Your task to perform on an android device: Clear all items from cart on amazon.com. Search for "razer blade" on amazon.com, select the first entry, and add it to the cart. Image 0: 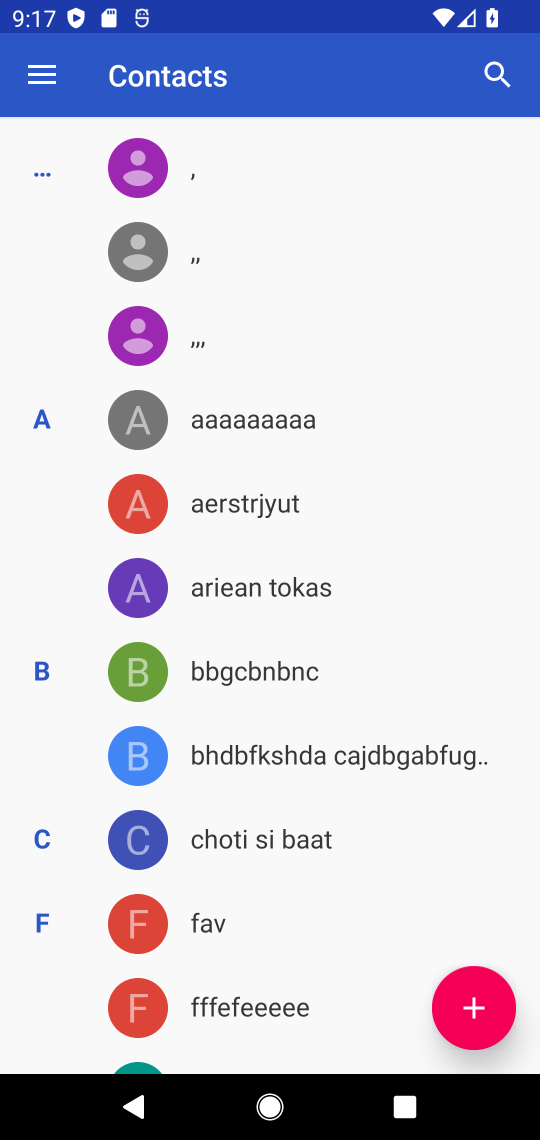
Step 0: press home button
Your task to perform on an android device: Clear all items from cart on amazon.com. Search for "razer blade" on amazon.com, select the first entry, and add it to the cart. Image 1: 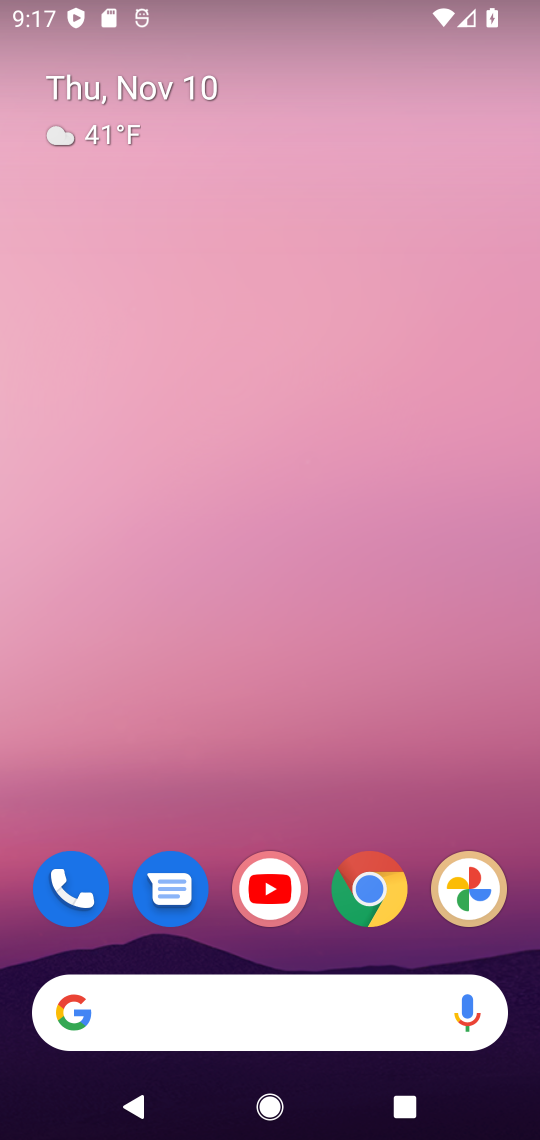
Step 1: click (376, 897)
Your task to perform on an android device: Clear all items from cart on amazon.com. Search for "razer blade" on amazon.com, select the first entry, and add it to the cart. Image 2: 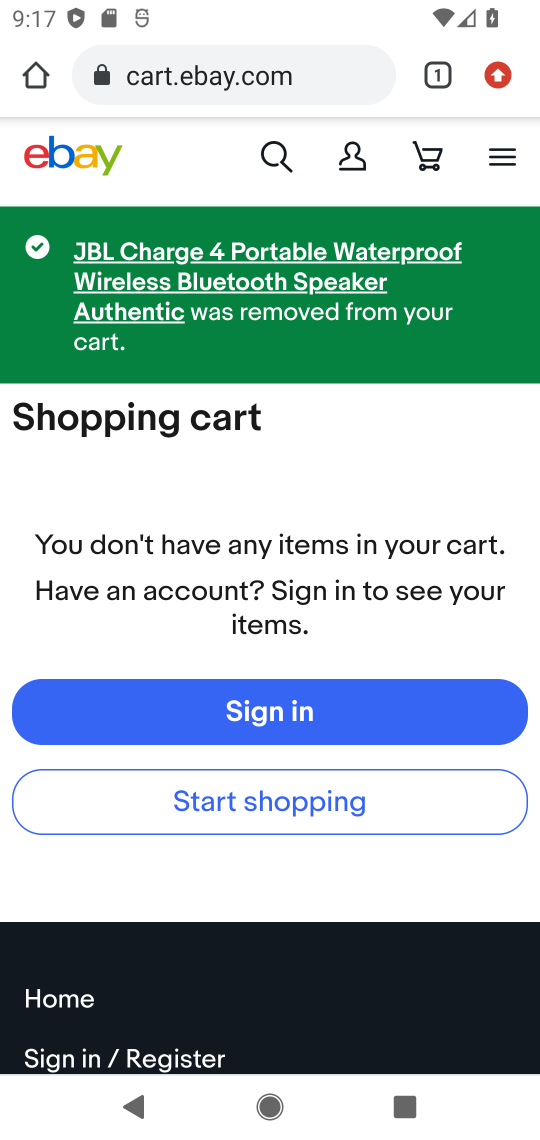
Step 2: click (292, 74)
Your task to perform on an android device: Clear all items from cart on amazon.com. Search for "razer blade" on amazon.com, select the first entry, and add it to the cart. Image 3: 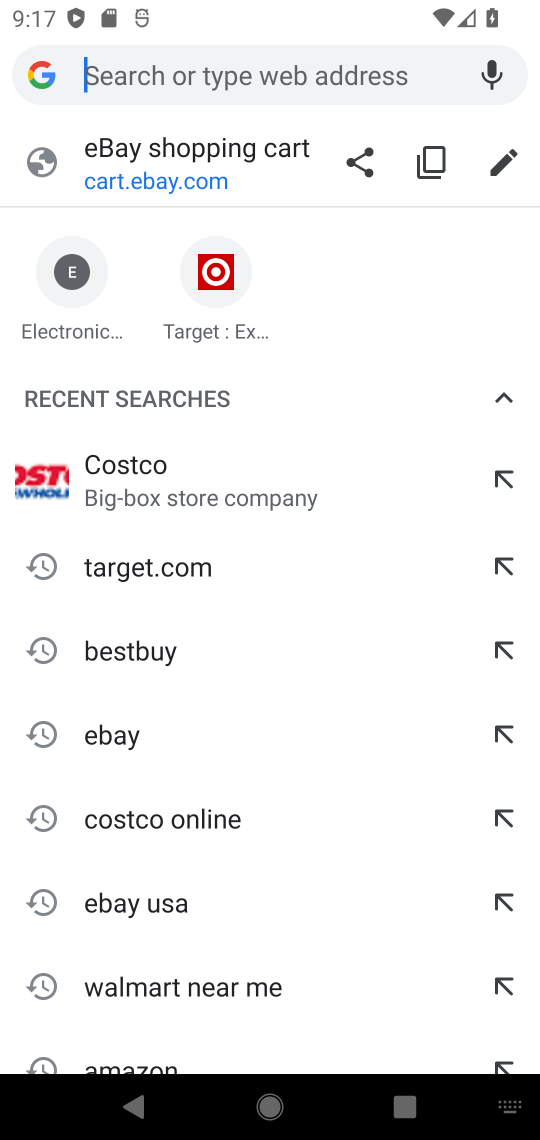
Step 3: drag from (260, 907) to (399, 530)
Your task to perform on an android device: Clear all items from cart on amazon.com. Search for "razer blade" on amazon.com, select the first entry, and add it to the cart. Image 4: 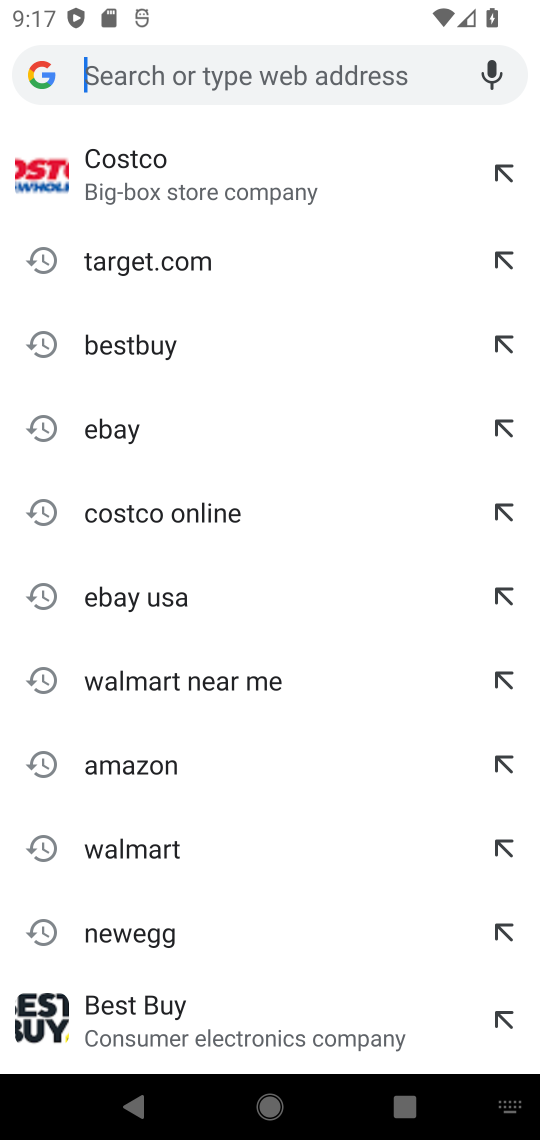
Step 4: click (127, 764)
Your task to perform on an android device: Clear all items from cart on amazon.com. Search for "razer blade" on amazon.com, select the first entry, and add it to the cart. Image 5: 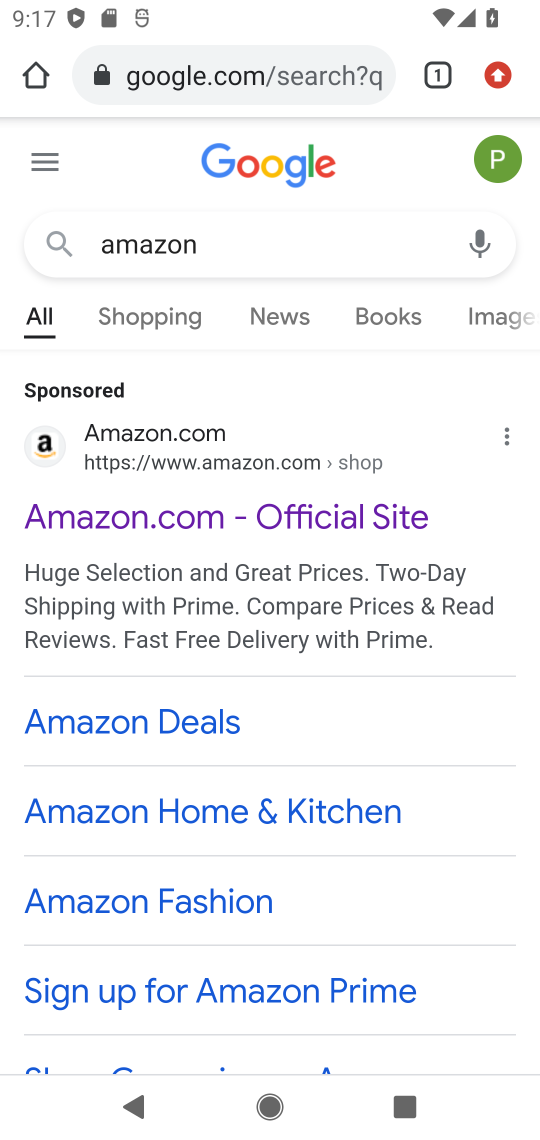
Step 5: click (182, 517)
Your task to perform on an android device: Clear all items from cart on amazon.com. Search for "razer blade" on amazon.com, select the first entry, and add it to the cart. Image 6: 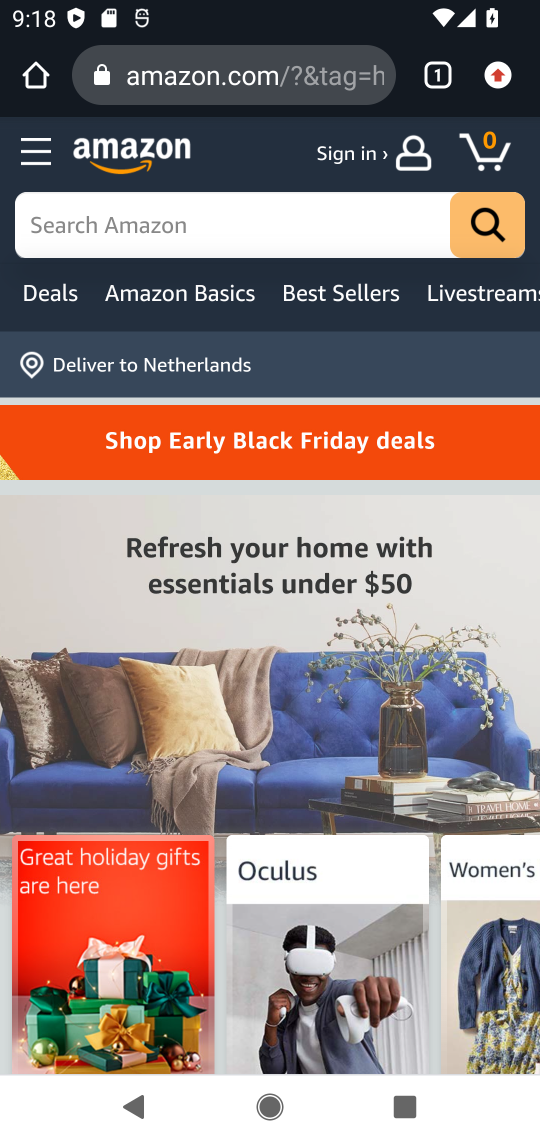
Step 6: click (322, 223)
Your task to perform on an android device: Clear all items from cart on amazon.com. Search for "razer blade" on amazon.com, select the first entry, and add it to the cart. Image 7: 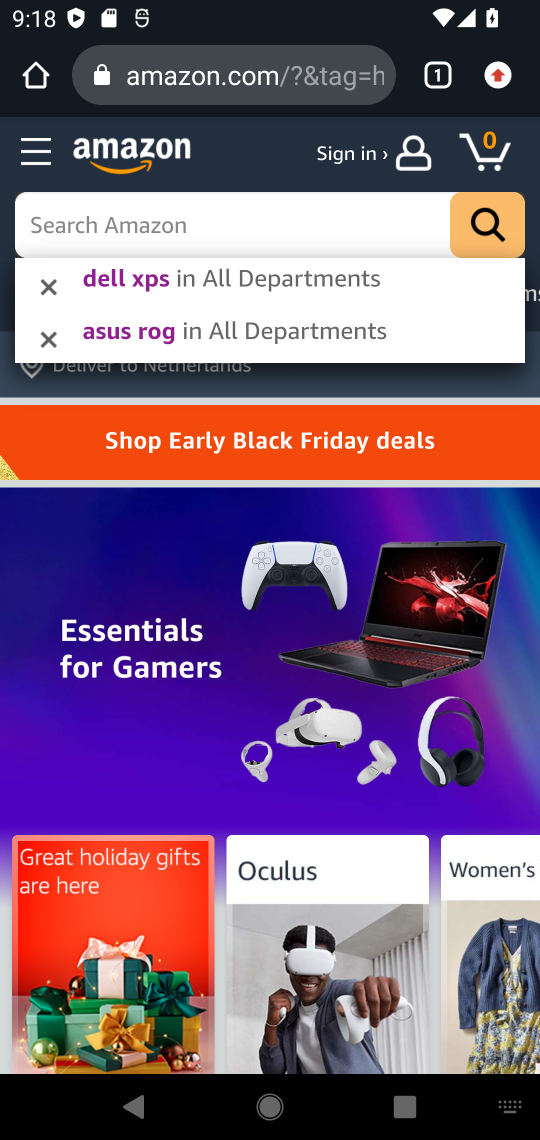
Step 7: type "razer blade"
Your task to perform on an android device: Clear all items from cart on amazon.com. Search for "razer blade" on amazon.com, select the first entry, and add it to the cart. Image 8: 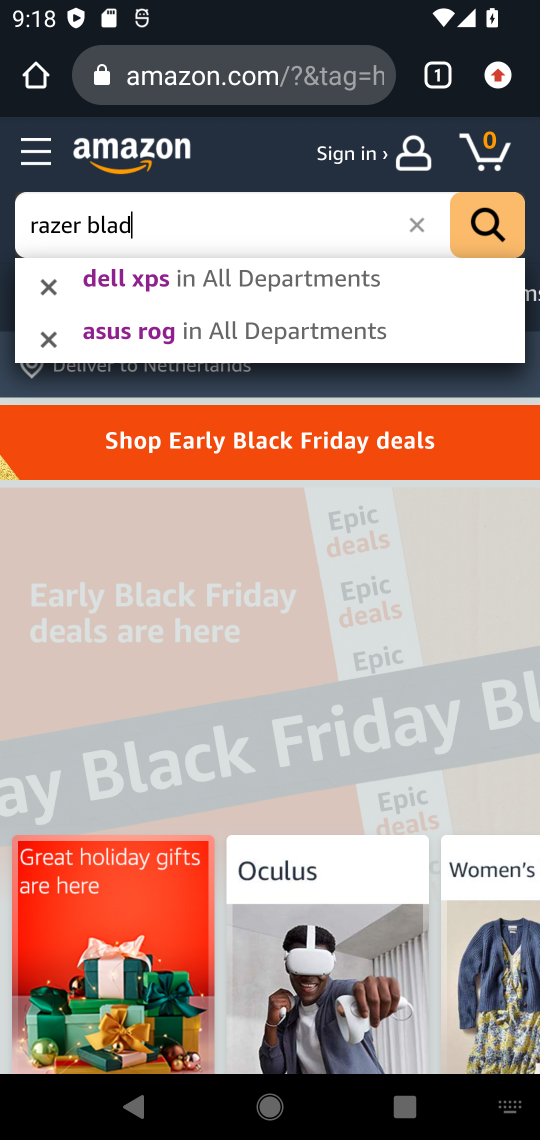
Step 8: press enter
Your task to perform on an android device: Clear all items from cart on amazon.com. Search for "razer blade" on amazon.com, select the first entry, and add it to the cart. Image 9: 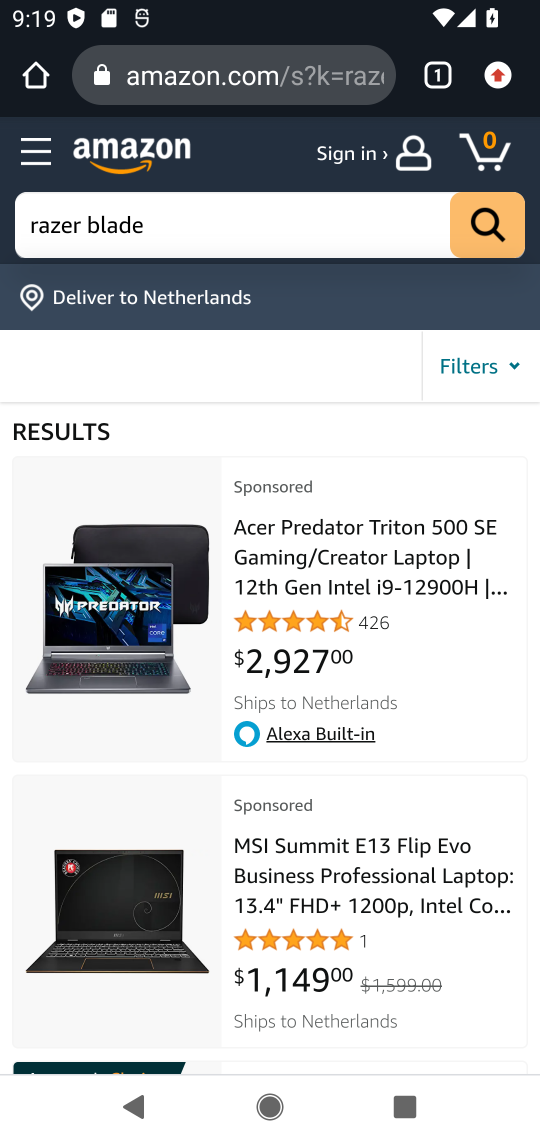
Step 9: task complete